Your task to perform on an android device: Search for razer blade on target, select the first entry, add it to the cart, then select checkout. Image 0: 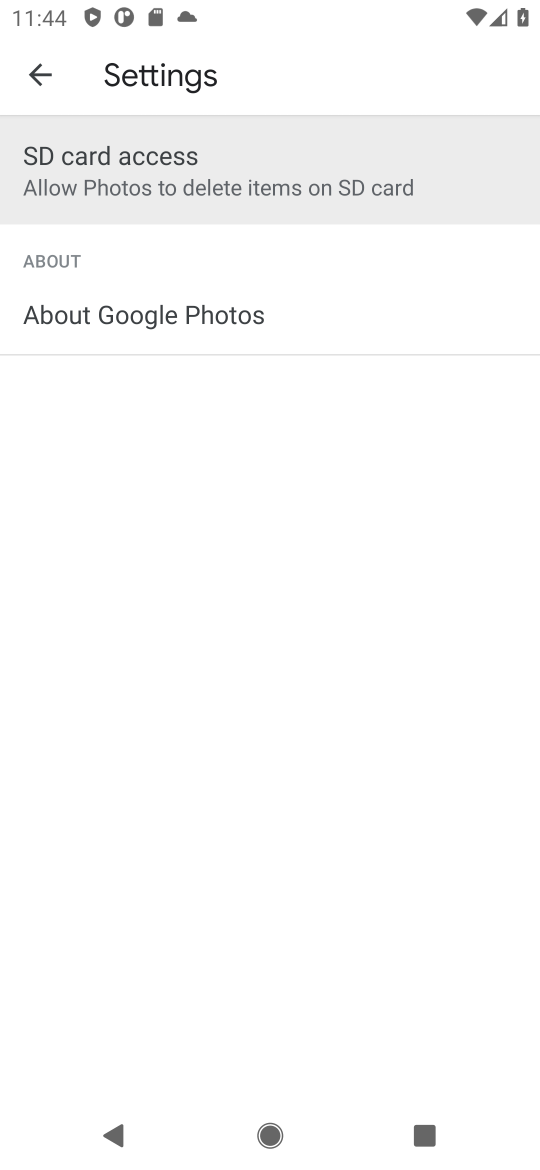
Step 0: press home button
Your task to perform on an android device: Search for razer blade on target, select the first entry, add it to the cart, then select checkout. Image 1: 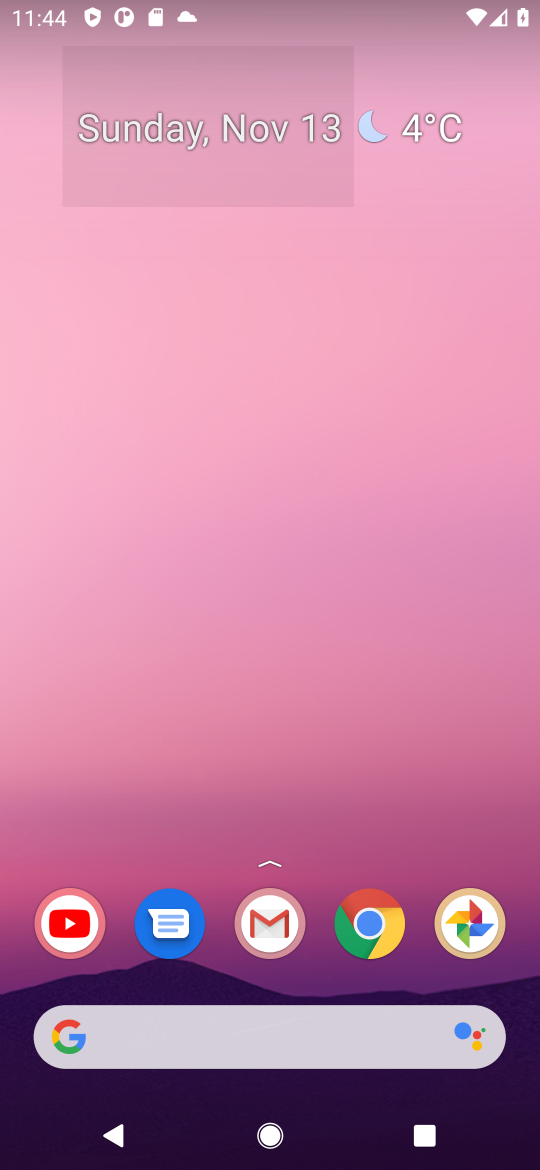
Step 1: click (367, 918)
Your task to perform on an android device: Search for razer blade on target, select the first entry, add it to the cart, then select checkout. Image 2: 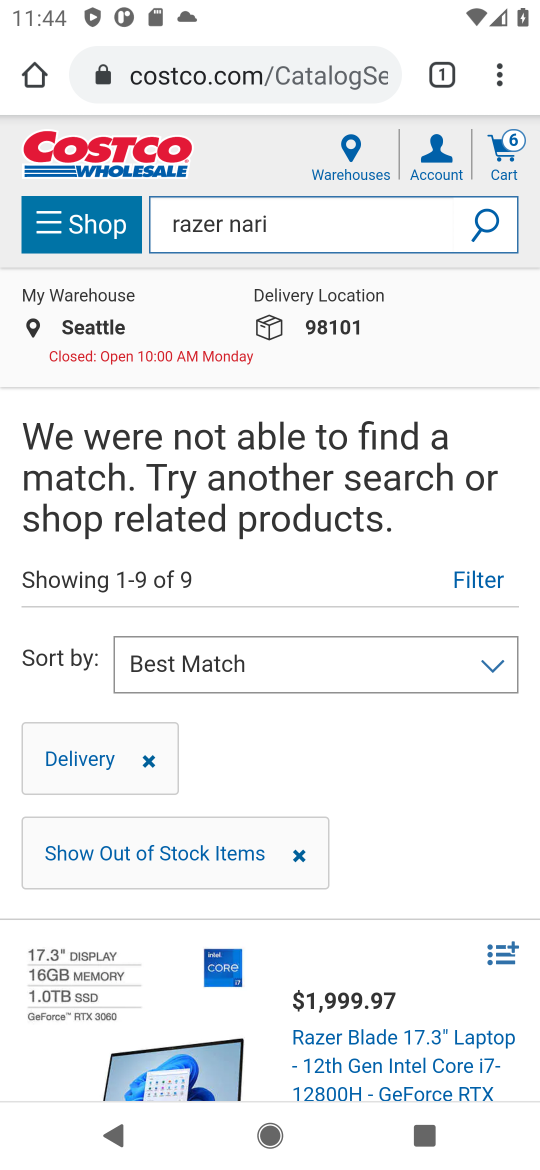
Step 2: click (300, 65)
Your task to perform on an android device: Search for razer blade on target, select the first entry, add it to the cart, then select checkout. Image 3: 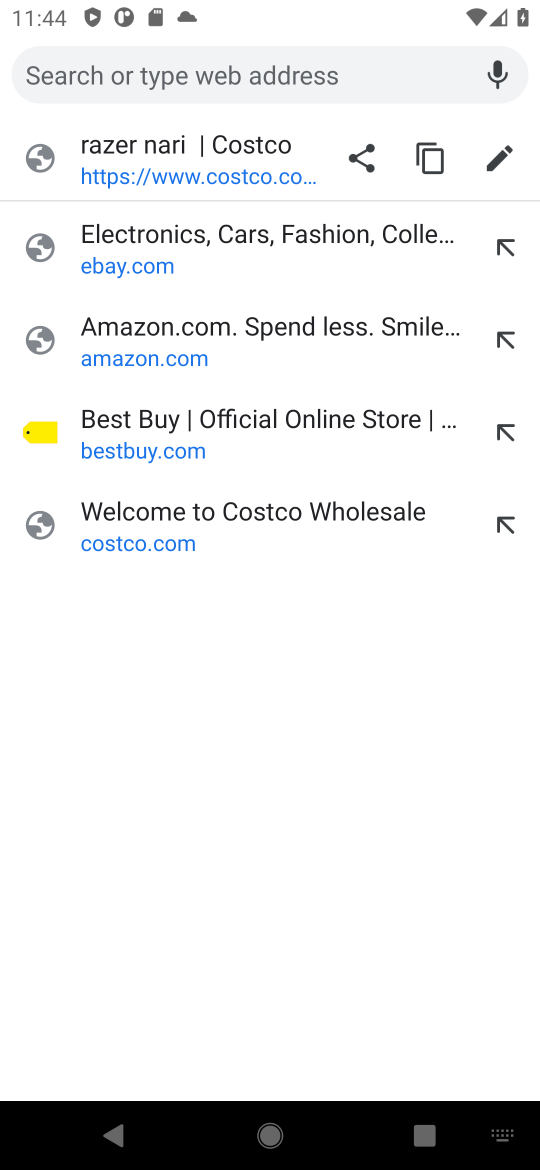
Step 3: type "target"
Your task to perform on an android device: Search for razer blade on target, select the first entry, add it to the cart, then select checkout. Image 4: 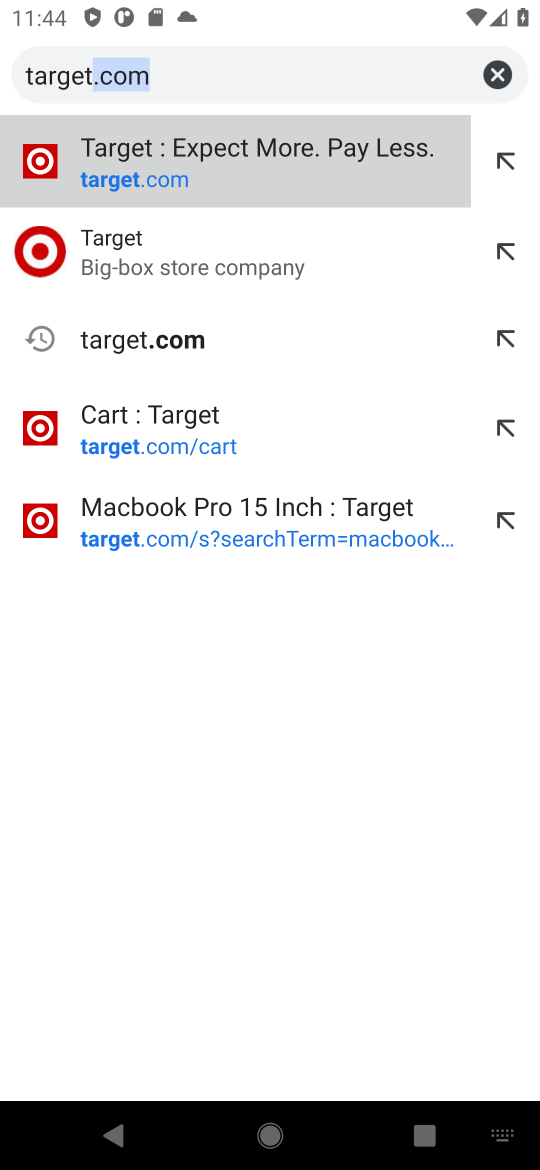
Step 4: press enter
Your task to perform on an android device: Search for razer blade on target, select the first entry, add it to the cart, then select checkout. Image 5: 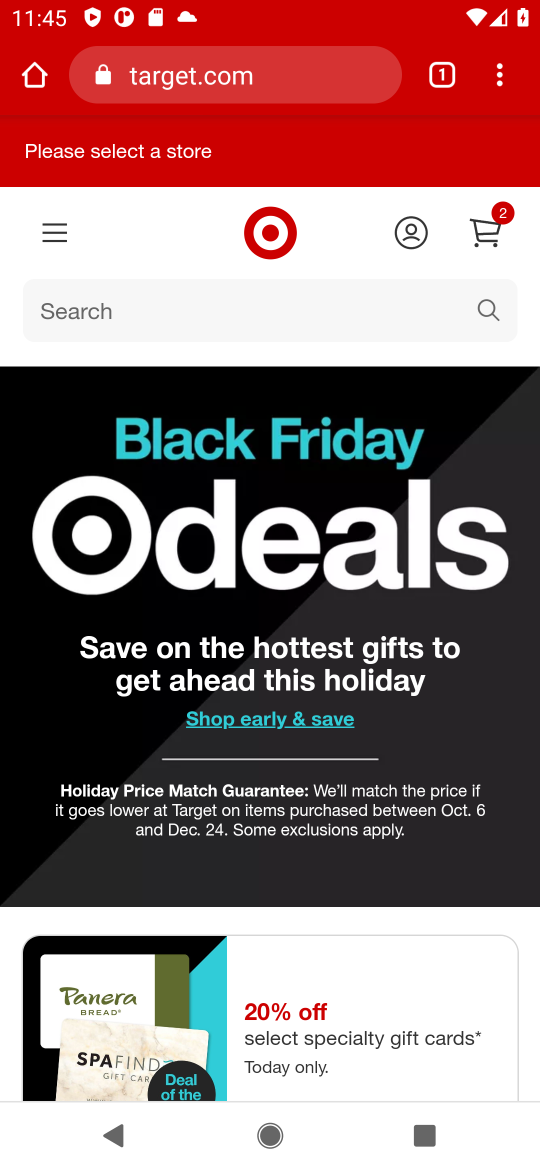
Step 5: click (484, 298)
Your task to perform on an android device: Search for razer blade on target, select the first entry, add it to the cart, then select checkout. Image 6: 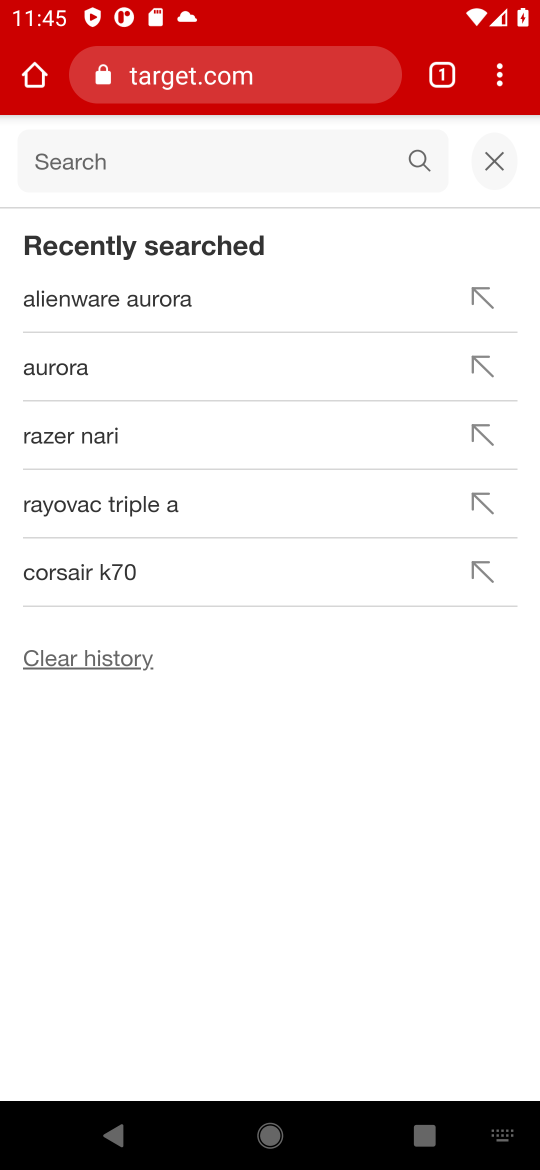
Step 6: type "razer blade"
Your task to perform on an android device: Search for razer blade on target, select the first entry, add it to the cart, then select checkout. Image 7: 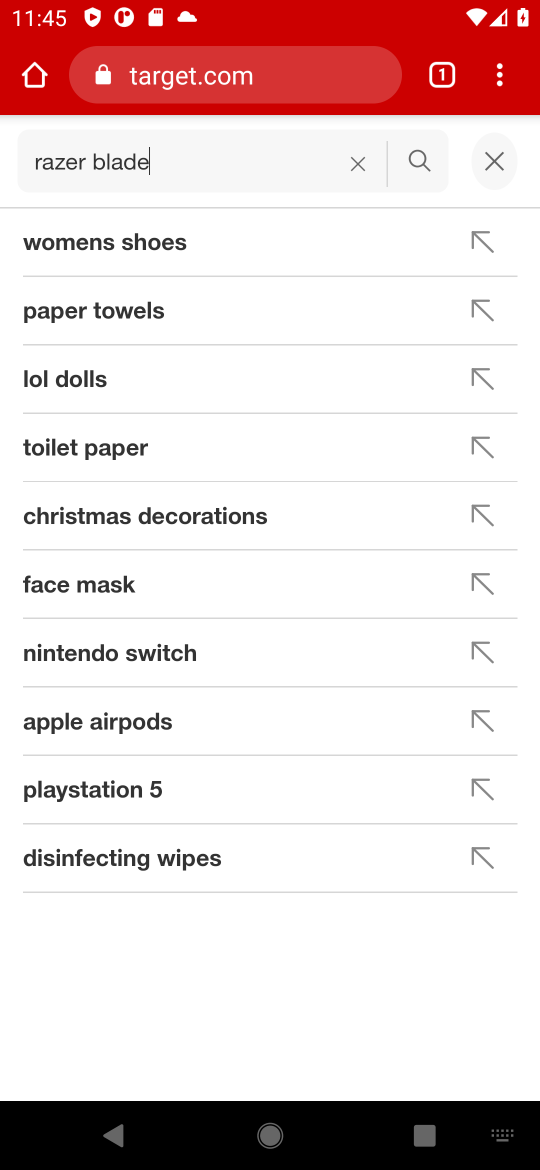
Step 7: press enter
Your task to perform on an android device: Search for razer blade on target, select the first entry, add it to the cart, then select checkout. Image 8: 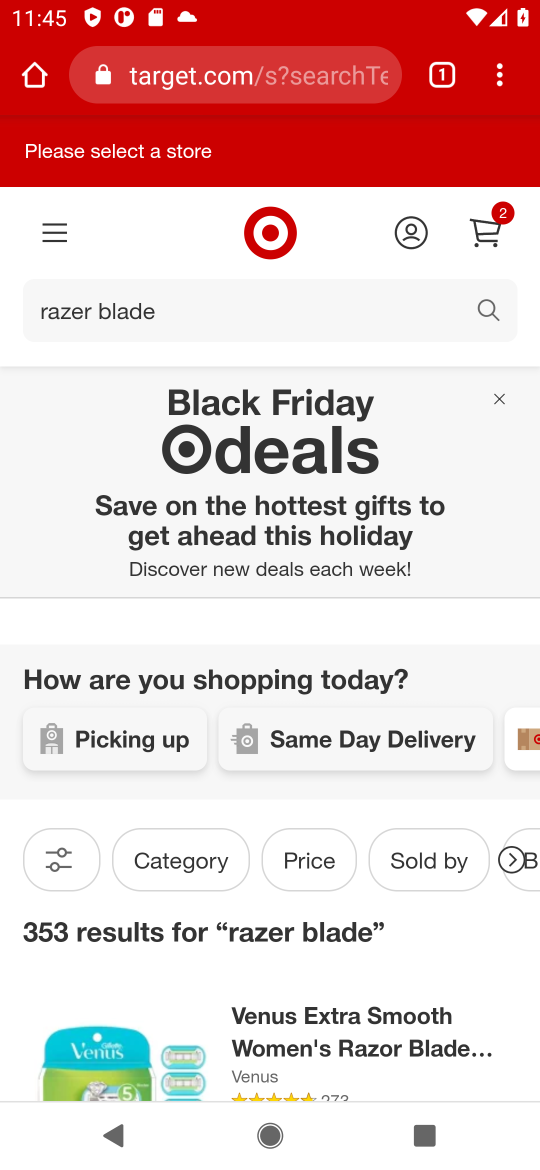
Step 8: task complete